Your task to perform on an android device: change the upload size in google photos Image 0: 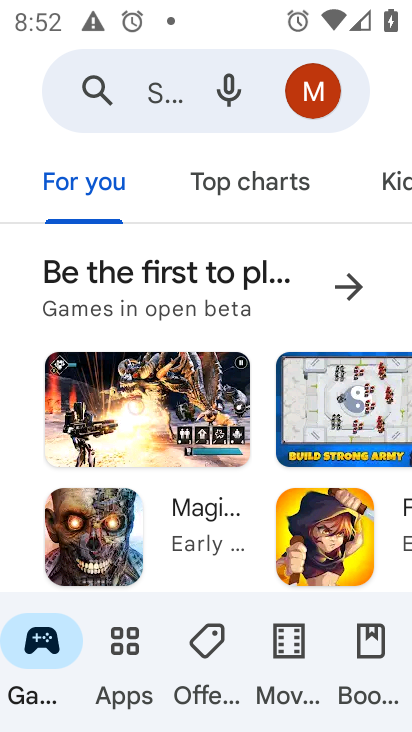
Step 0: press home button
Your task to perform on an android device: change the upload size in google photos Image 1: 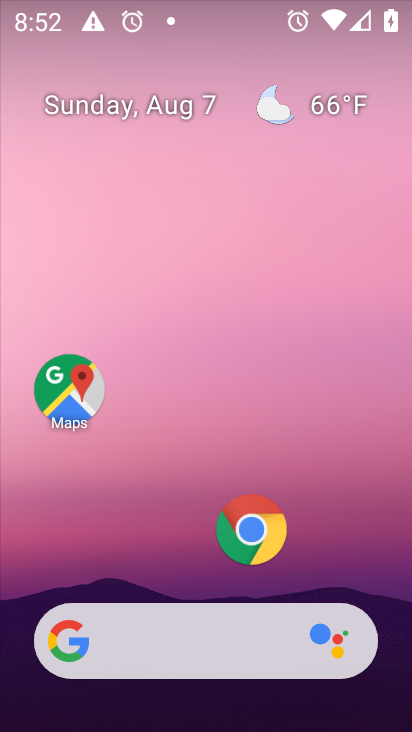
Step 1: drag from (163, 589) to (395, 120)
Your task to perform on an android device: change the upload size in google photos Image 2: 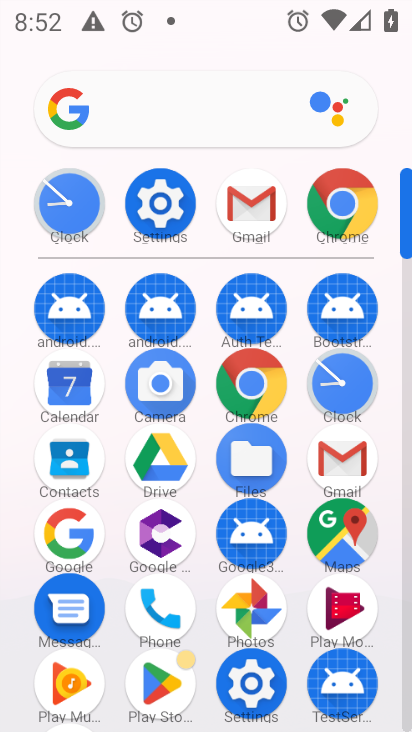
Step 2: click (248, 604)
Your task to perform on an android device: change the upload size in google photos Image 3: 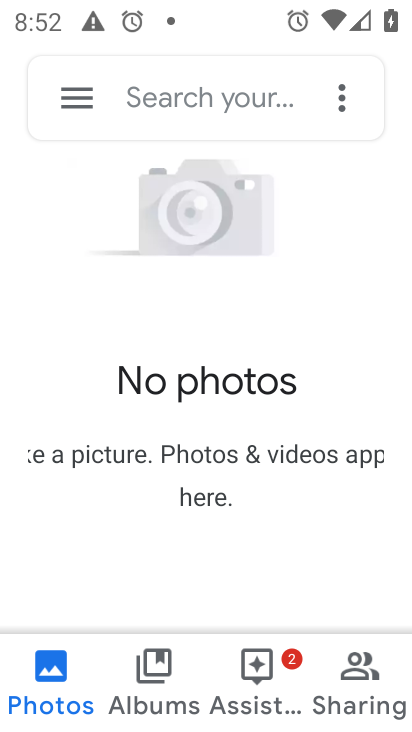
Step 3: click (67, 86)
Your task to perform on an android device: change the upload size in google photos Image 4: 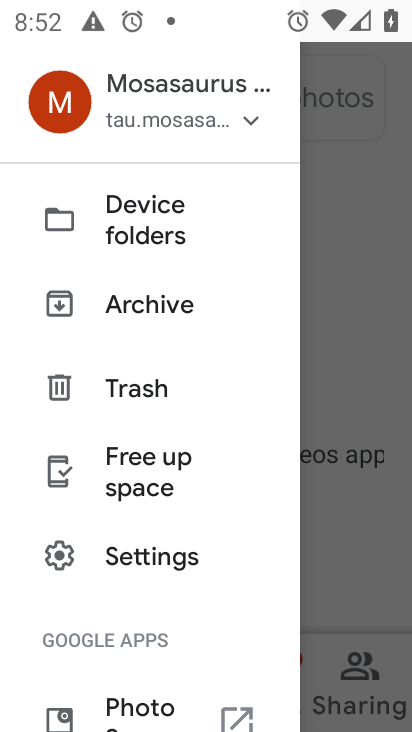
Step 4: click (153, 566)
Your task to perform on an android device: change the upload size in google photos Image 5: 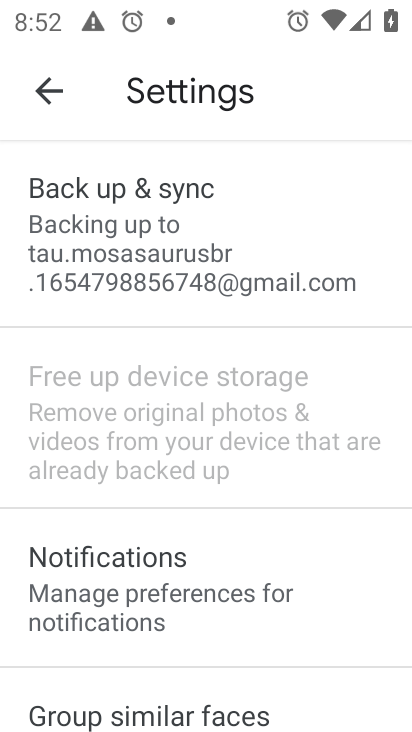
Step 5: click (210, 255)
Your task to perform on an android device: change the upload size in google photos Image 6: 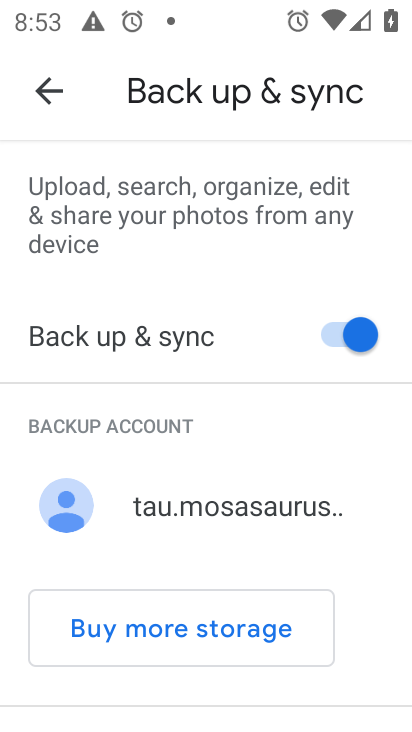
Step 6: drag from (197, 551) to (220, 275)
Your task to perform on an android device: change the upload size in google photos Image 7: 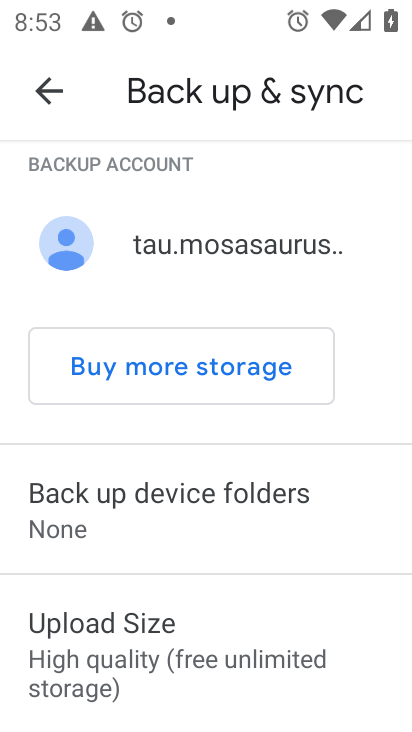
Step 7: click (159, 645)
Your task to perform on an android device: change the upload size in google photos Image 8: 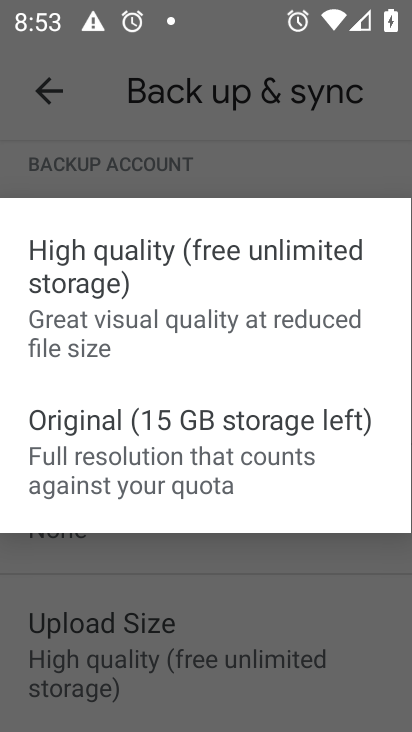
Step 8: click (123, 460)
Your task to perform on an android device: change the upload size in google photos Image 9: 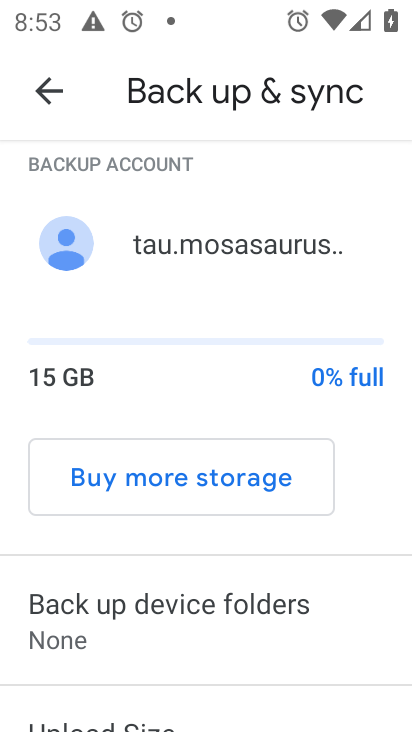
Step 9: task complete